Your task to perform on an android device: Open Chrome and go to settings Image 0: 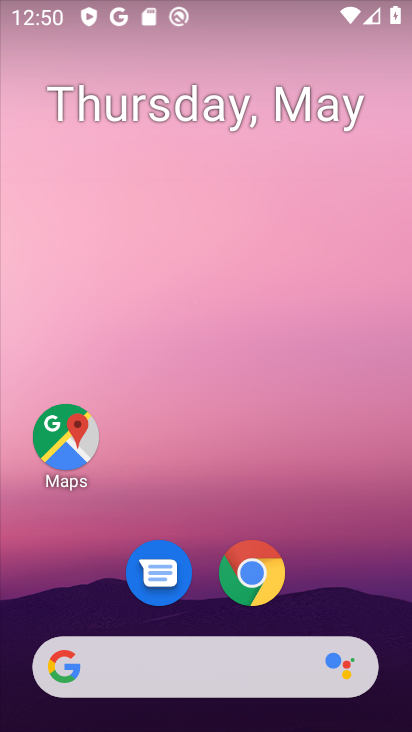
Step 0: drag from (334, 570) to (260, 7)
Your task to perform on an android device: Open Chrome and go to settings Image 1: 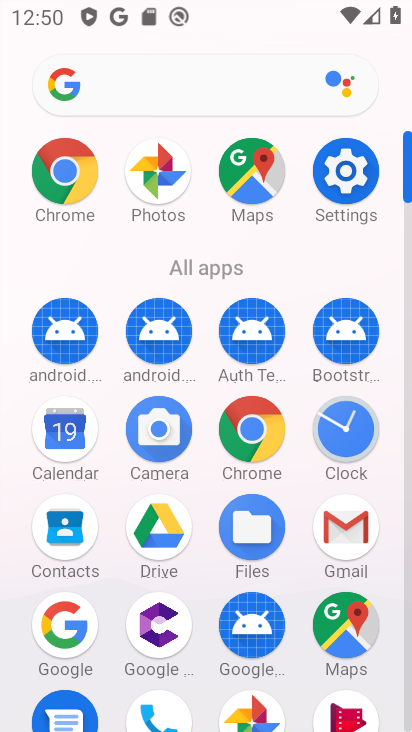
Step 1: click (62, 170)
Your task to perform on an android device: Open Chrome and go to settings Image 2: 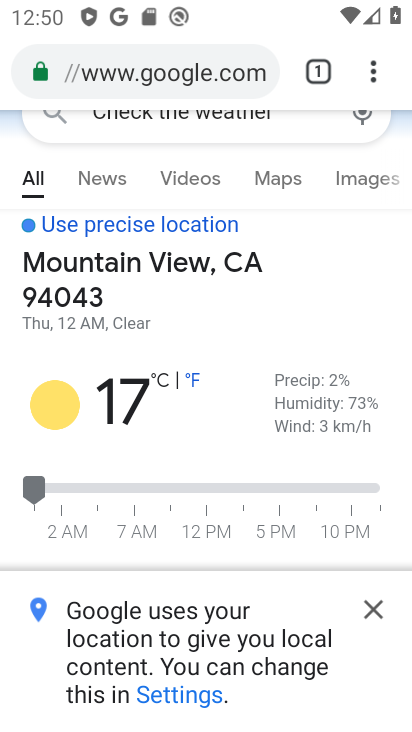
Step 2: task complete